Your task to perform on an android device: Open my contact list Image 0: 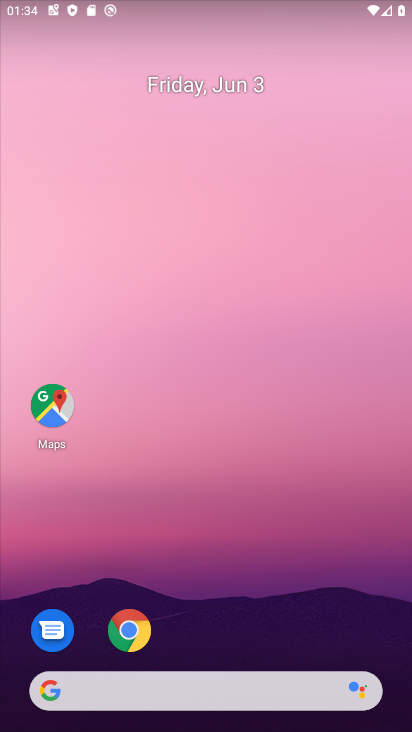
Step 0: drag from (217, 637) to (185, 107)
Your task to perform on an android device: Open my contact list Image 1: 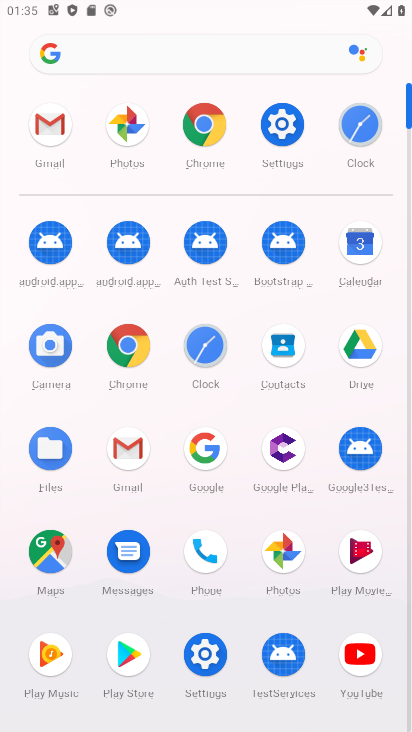
Step 1: click (284, 346)
Your task to perform on an android device: Open my contact list Image 2: 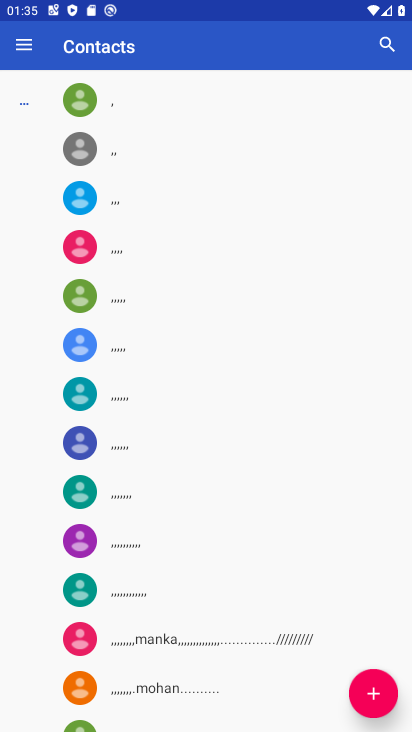
Step 2: task complete